Your task to perform on an android device: turn off location Image 0: 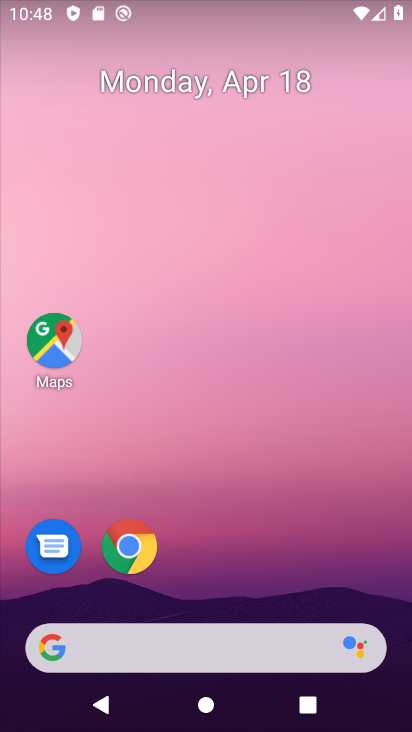
Step 0: drag from (233, 581) to (298, 71)
Your task to perform on an android device: turn off location Image 1: 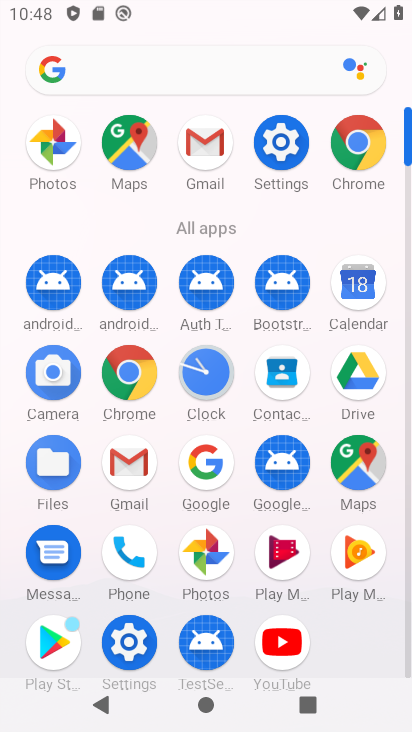
Step 1: click (267, 140)
Your task to perform on an android device: turn off location Image 2: 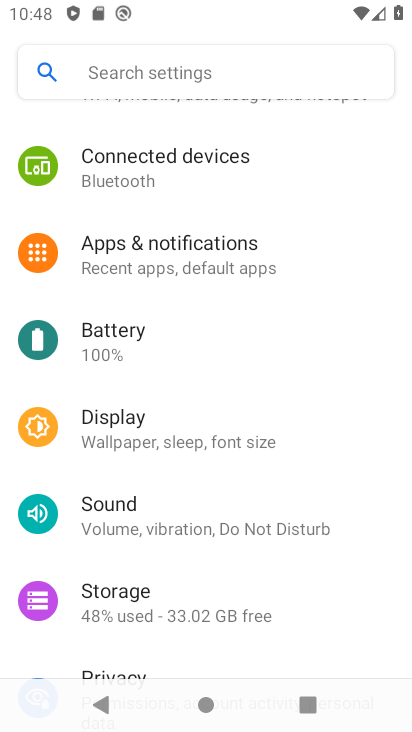
Step 2: drag from (220, 502) to (279, 198)
Your task to perform on an android device: turn off location Image 3: 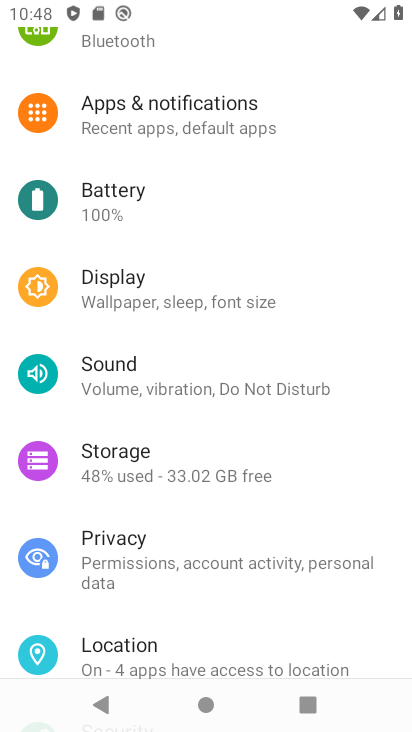
Step 3: drag from (249, 624) to (262, 382)
Your task to perform on an android device: turn off location Image 4: 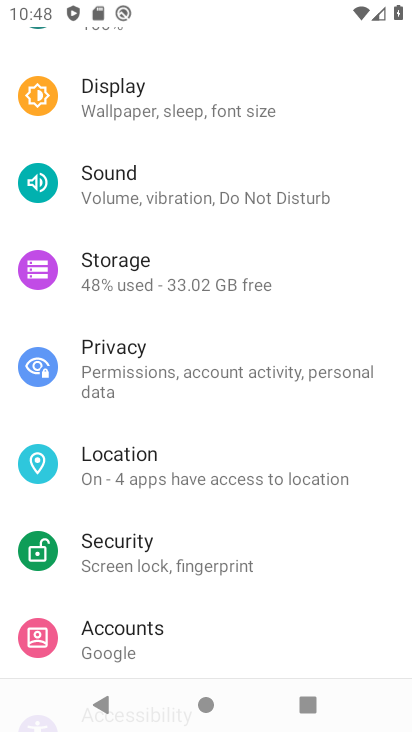
Step 4: click (227, 445)
Your task to perform on an android device: turn off location Image 5: 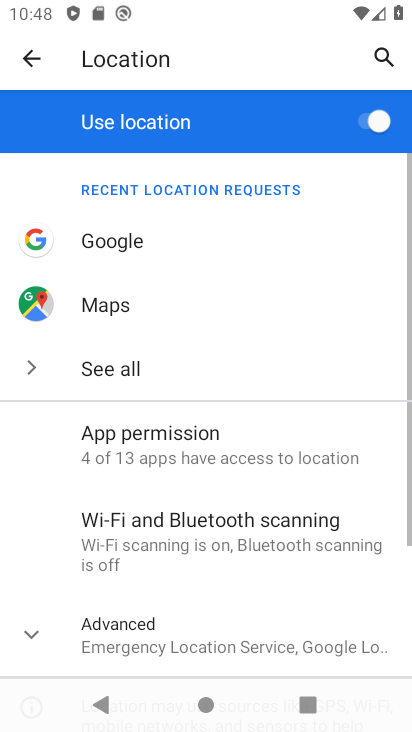
Step 5: drag from (175, 538) to (242, 303)
Your task to perform on an android device: turn off location Image 6: 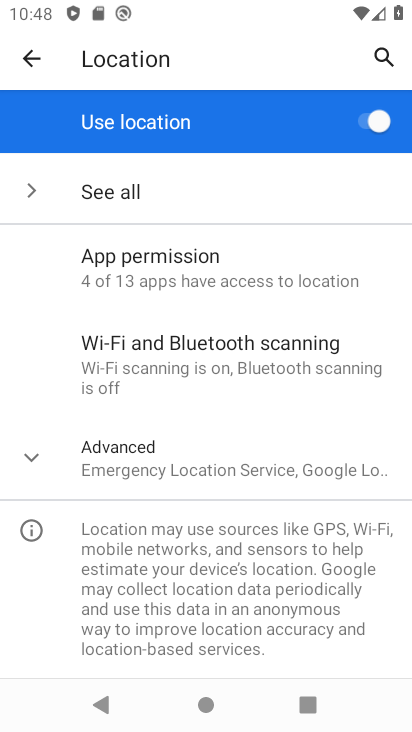
Step 6: click (229, 479)
Your task to perform on an android device: turn off location Image 7: 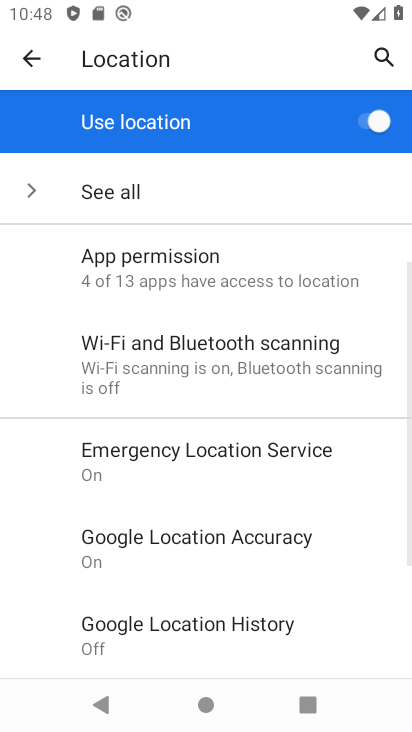
Step 7: click (331, 116)
Your task to perform on an android device: turn off location Image 8: 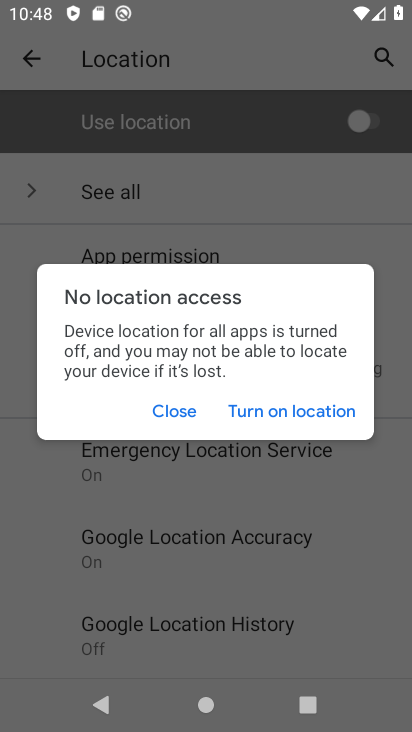
Step 8: click (289, 408)
Your task to perform on an android device: turn off location Image 9: 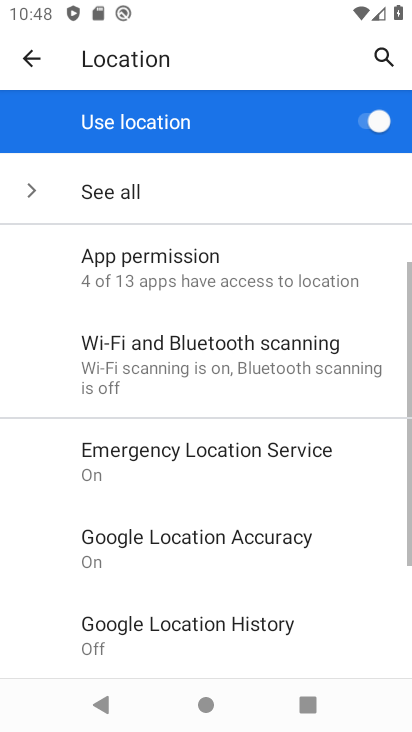
Step 9: task complete